Your task to perform on an android device: Do I have any events today? Image 0: 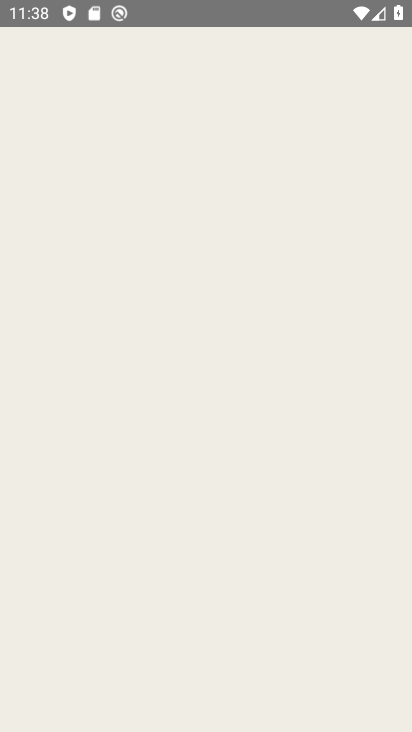
Step 0: press home button
Your task to perform on an android device: Do I have any events today? Image 1: 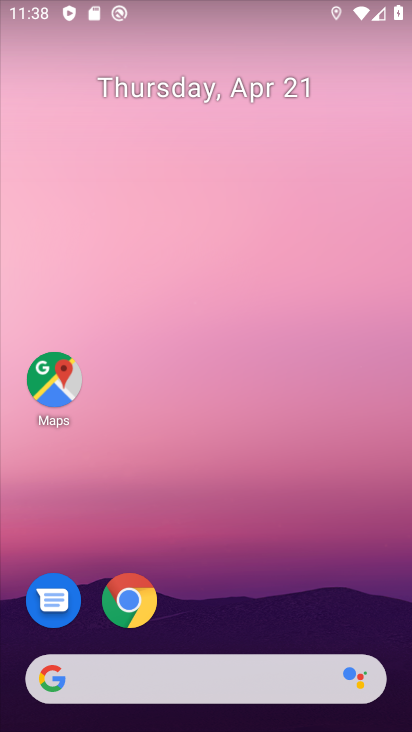
Step 1: drag from (210, 595) to (262, 176)
Your task to perform on an android device: Do I have any events today? Image 2: 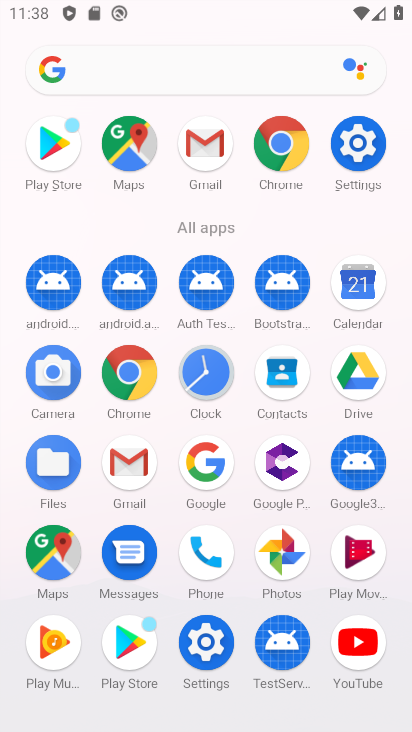
Step 2: click (371, 299)
Your task to perform on an android device: Do I have any events today? Image 3: 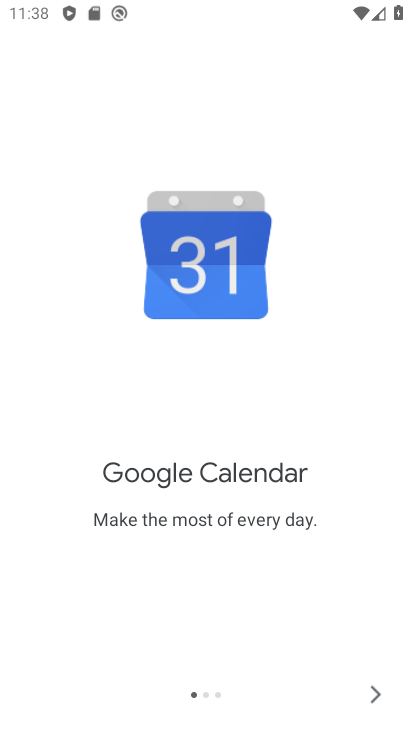
Step 3: click (375, 692)
Your task to perform on an android device: Do I have any events today? Image 4: 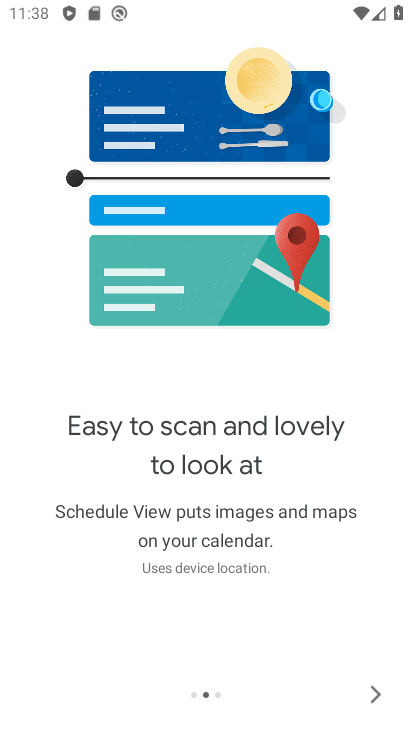
Step 4: click (375, 693)
Your task to perform on an android device: Do I have any events today? Image 5: 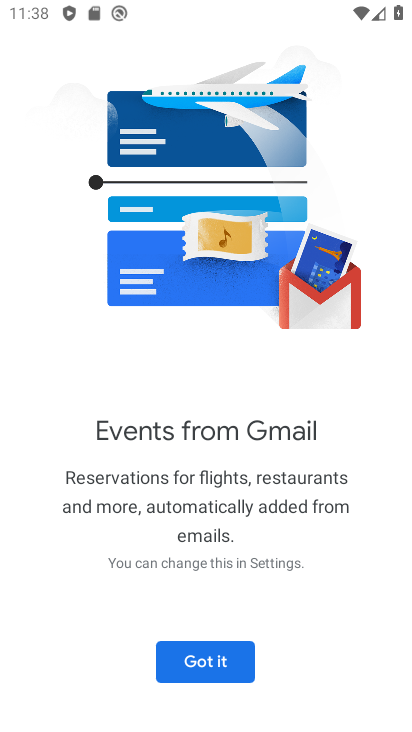
Step 5: click (184, 658)
Your task to perform on an android device: Do I have any events today? Image 6: 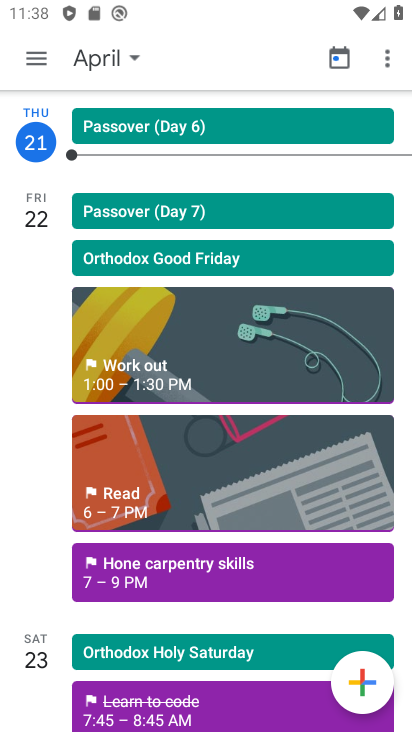
Step 6: click (37, 66)
Your task to perform on an android device: Do I have any events today? Image 7: 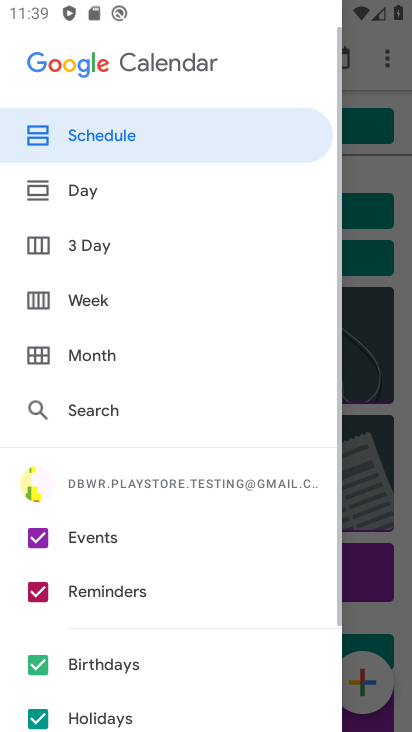
Step 7: click (128, 588)
Your task to perform on an android device: Do I have any events today? Image 8: 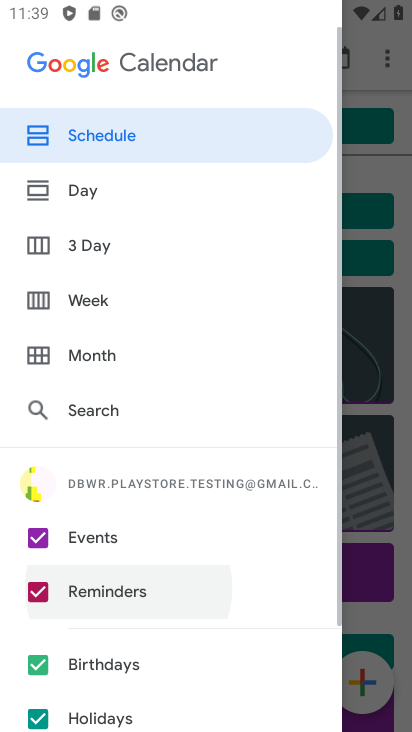
Step 8: click (107, 665)
Your task to perform on an android device: Do I have any events today? Image 9: 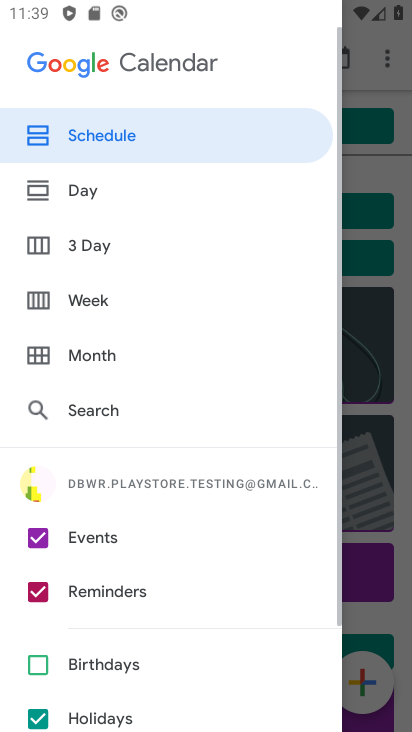
Step 9: drag from (110, 663) to (177, 416)
Your task to perform on an android device: Do I have any events today? Image 10: 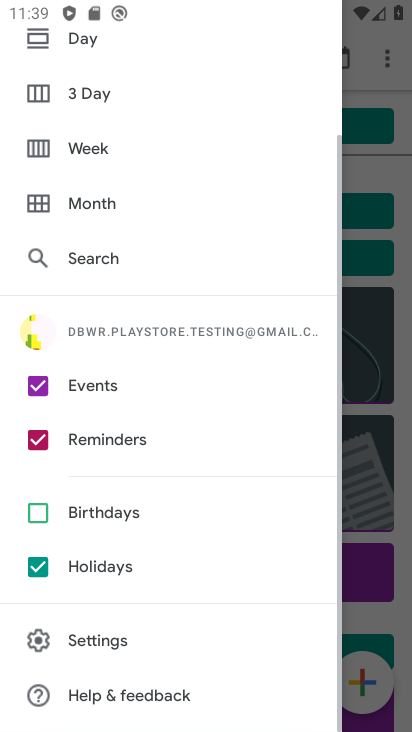
Step 10: click (61, 440)
Your task to perform on an android device: Do I have any events today? Image 11: 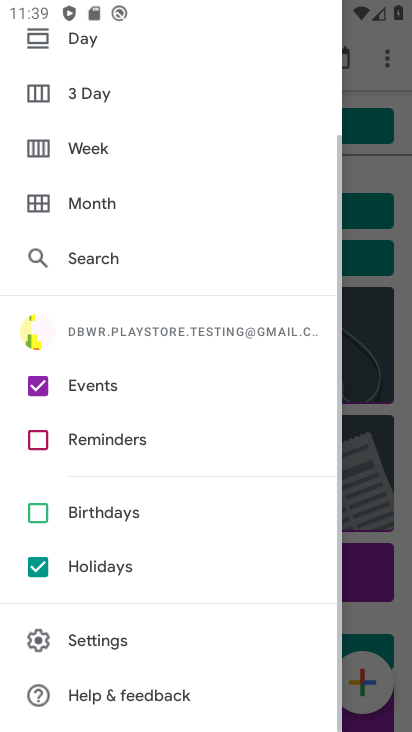
Step 11: click (32, 574)
Your task to perform on an android device: Do I have any events today? Image 12: 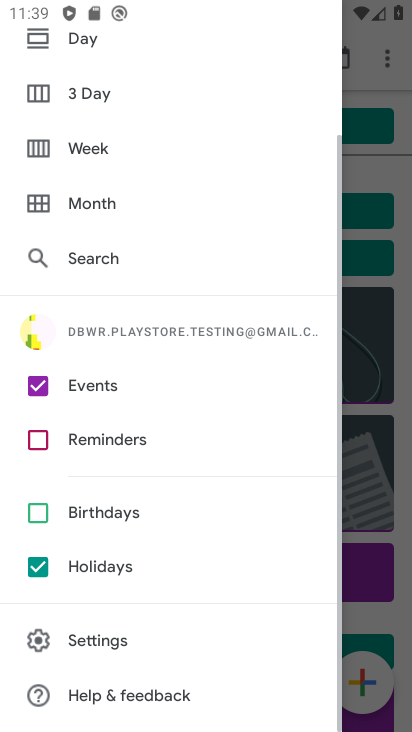
Step 12: click (101, 565)
Your task to perform on an android device: Do I have any events today? Image 13: 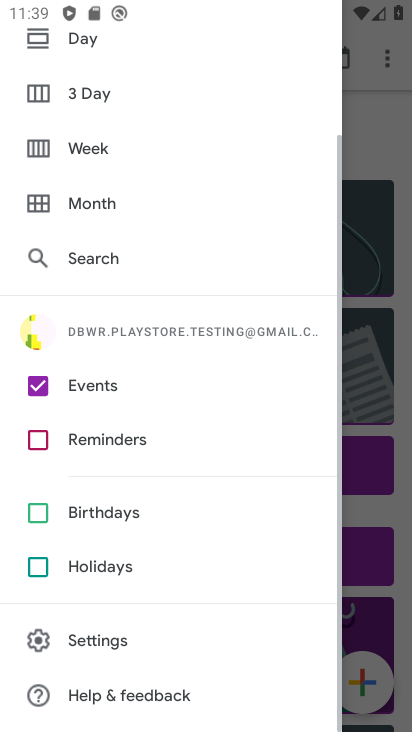
Step 13: drag from (238, 315) to (206, 685)
Your task to perform on an android device: Do I have any events today? Image 14: 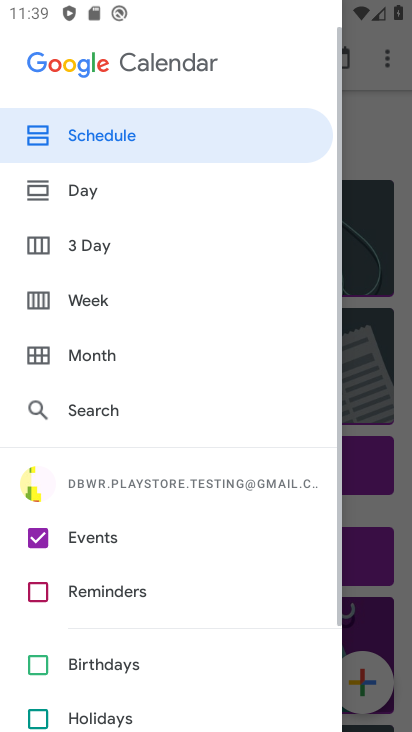
Step 14: click (86, 245)
Your task to perform on an android device: Do I have any events today? Image 15: 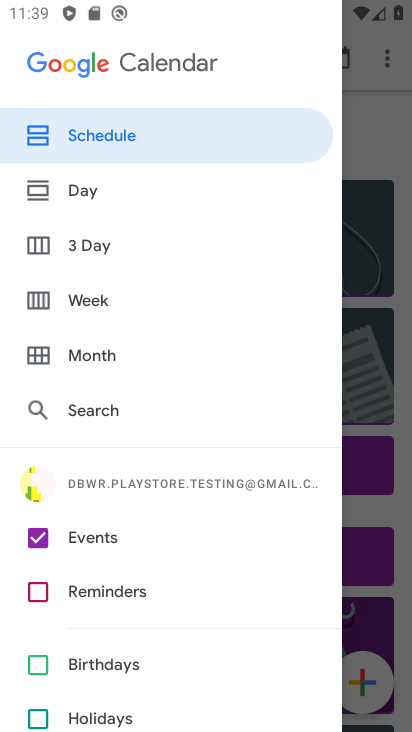
Step 15: click (87, 245)
Your task to perform on an android device: Do I have any events today? Image 16: 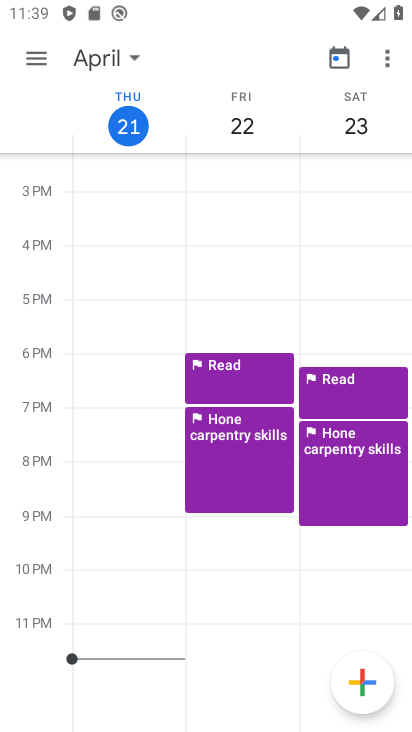
Step 16: task complete